Your task to perform on an android device: Search for sushi restaurants on Maps Image 0: 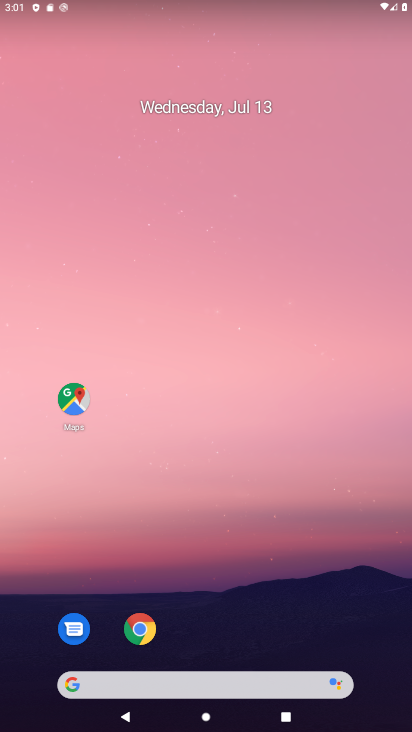
Step 0: click (71, 414)
Your task to perform on an android device: Search for sushi restaurants on Maps Image 1: 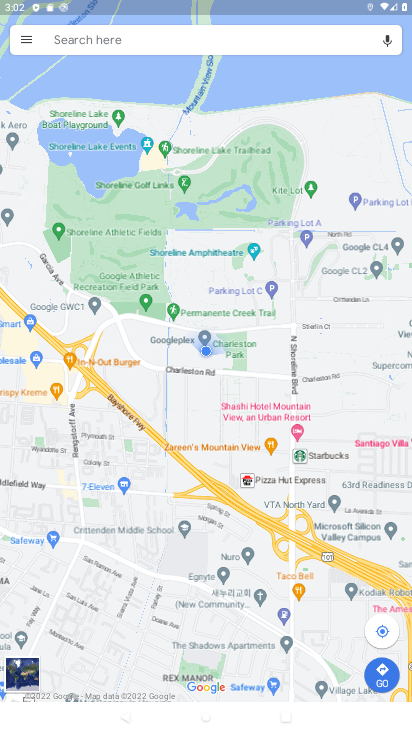
Step 1: click (227, 41)
Your task to perform on an android device: Search for sushi restaurants on Maps Image 2: 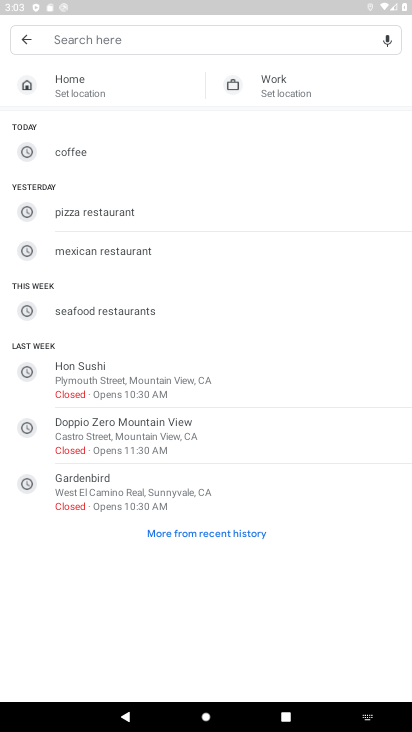
Step 2: type "sushi restaurants"
Your task to perform on an android device: Search for sushi restaurants on Maps Image 3: 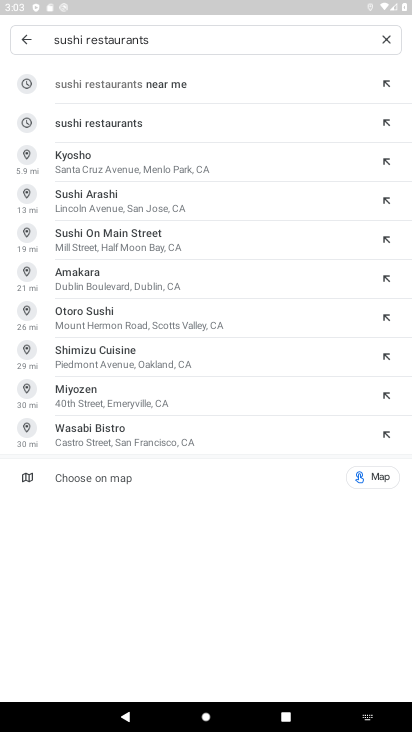
Step 3: click (232, 117)
Your task to perform on an android device: Search for sushi restaurants on Maps Image 4: 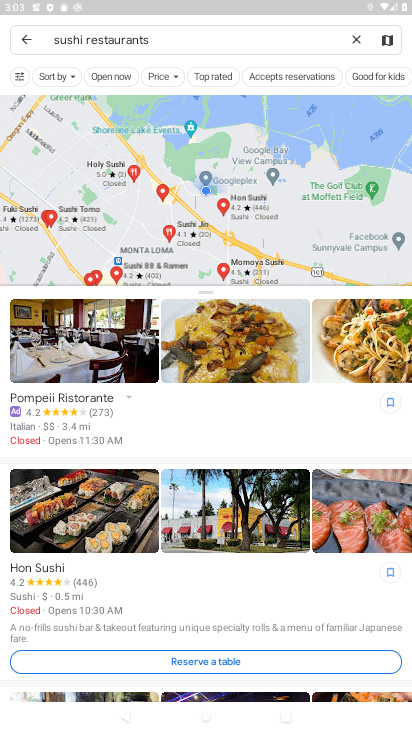
Step 4: task complete